Your task to perform on an android device: Open CNN.com Image 0: 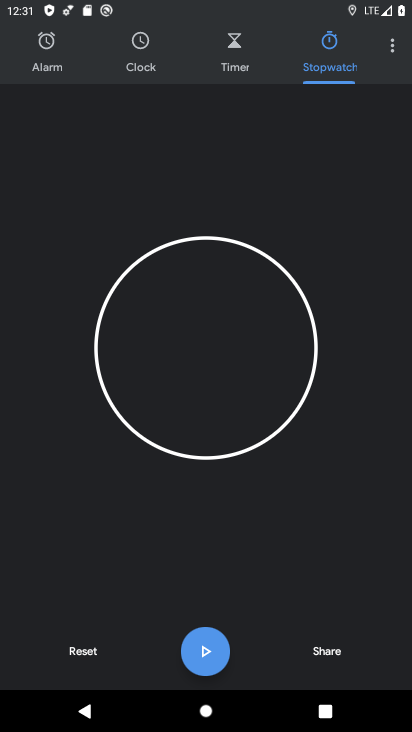
Step 0: press home button
Your task to perform on an android device: Open CNN.com Image 1: 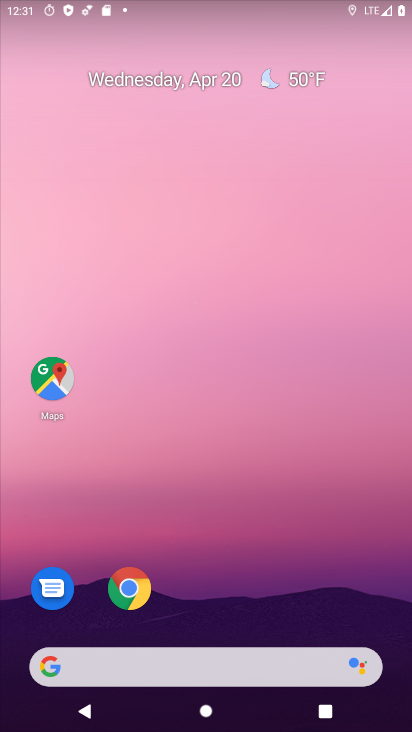
Step 1: click (137, 592)
Your task to perform on an android device: Open CNN.com Image 2: 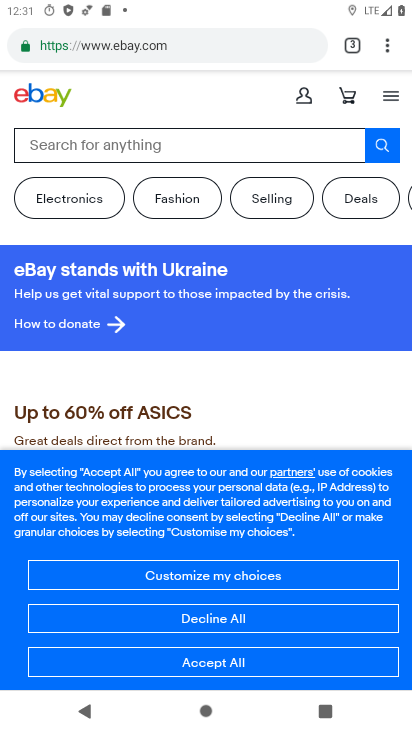
Step 2: click (154, 51)
Your task to perform on an android device: Open CNN.com Image 3: 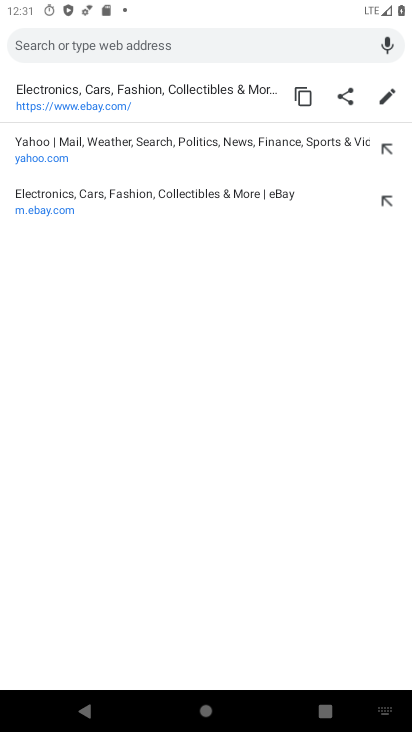
Step 3: type "cnn.com"
Your task to perform on an android device: Open CNN.com Image 4: 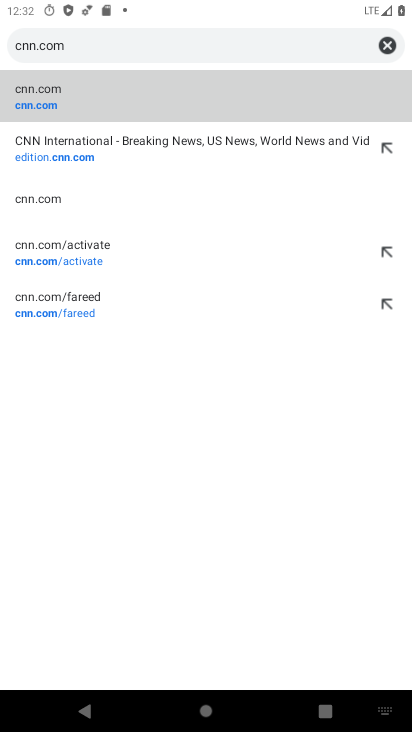
Step 4: click (55, 102)
Your task to perform on an android device: Open CNN.com Image 5: 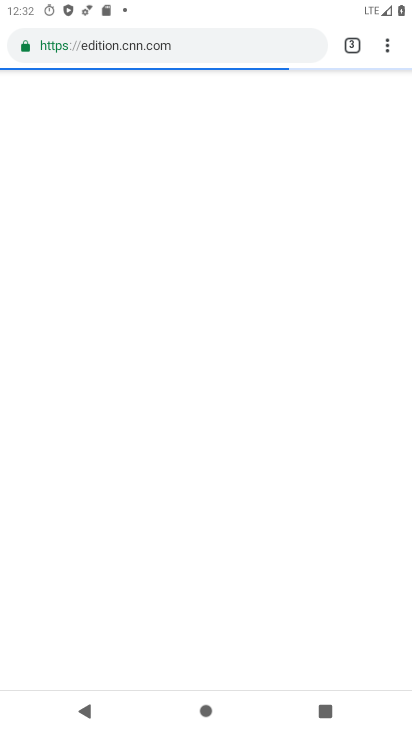
Step 5: task complete